Your task to perform on an android device: Do I have any events tomorrow? Image 0: 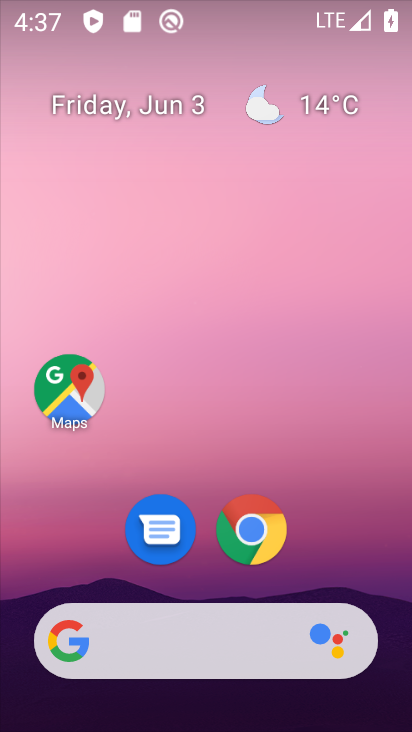
Step 0: drag from (207, 572) to (209, 95)
Your task to perform on an android device: Do I have any events tomorrow? Image 1: 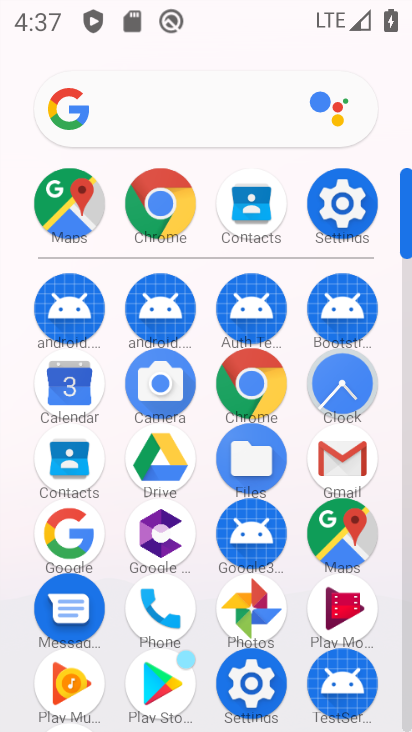
Step 1: click (69, 380)
Your task to perform on an android device: Do I have any events tomorrow? Image 2: 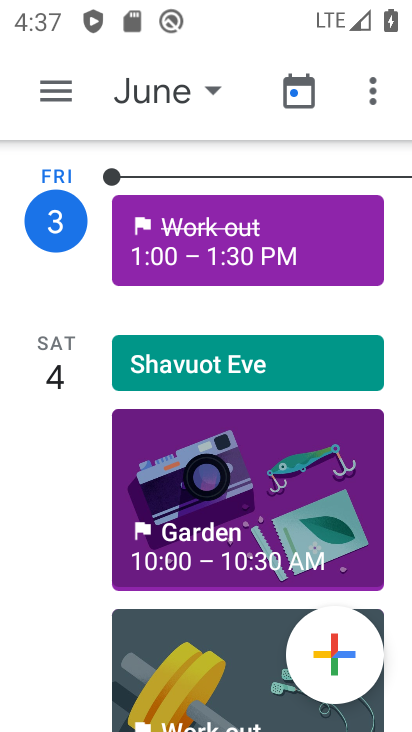
Step 2: click (73, 371)
Your task to perform on an android device: Do I have any events tomorrow? Image 3: 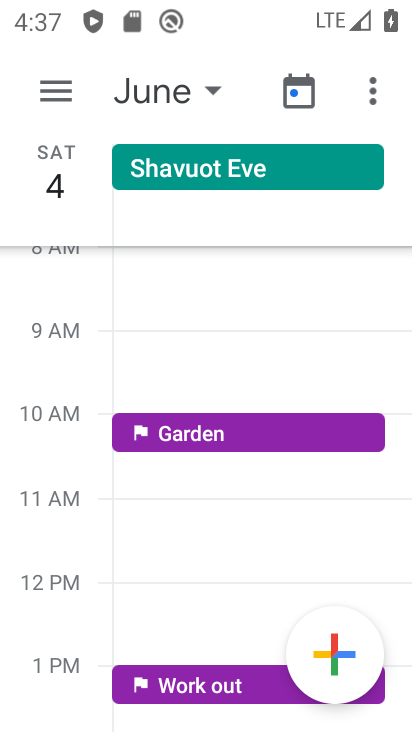
Step 3: task complete